Your task to perform on an android device: Open internet settings Image 0: 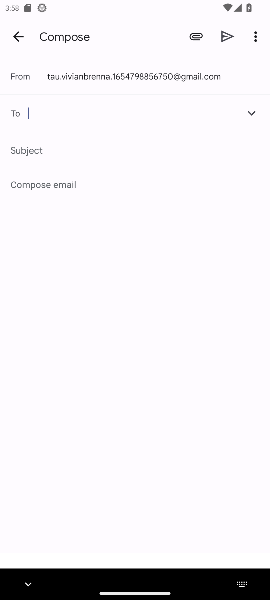
Step 0: press home button
Your task to perform on an android device: Open internet settings Image 1: 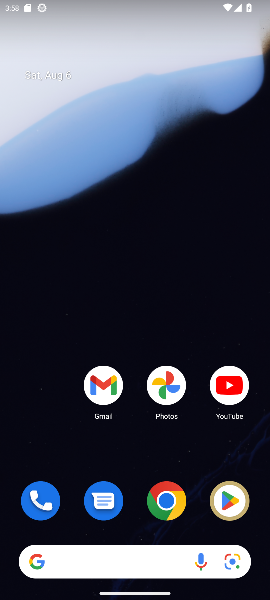
Step 1: drag from (28, 538) to (188, 67)
Your task to perform on an android device: Open internet settings Image 2: 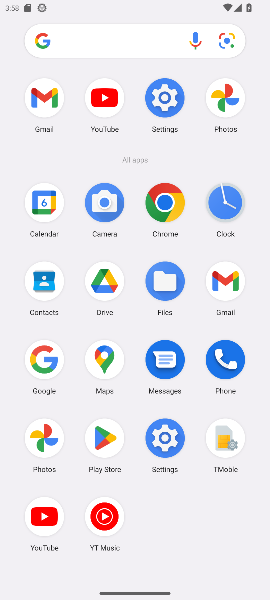
Step 2: click (179, 117)
Your task to perform on an android device: Open internet settings Image 3: 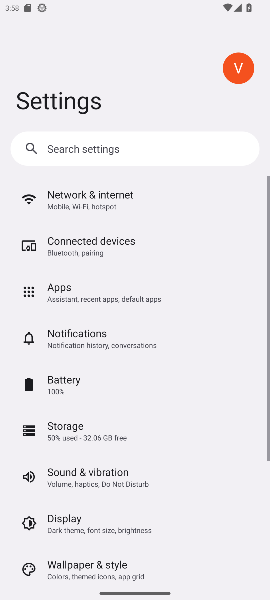
Step 3: click (88, 205)
Your task to perform on an android device: Open internet settings Image 4: 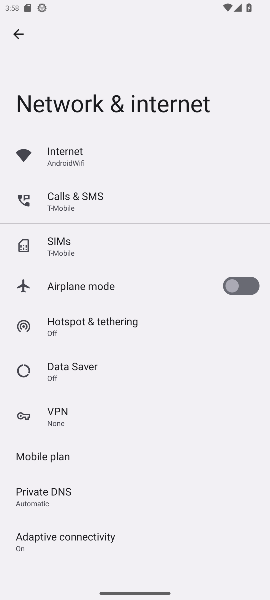
Step 4: task complete